Your task to perform on an android device: Open the calendar app, open the side menu, and click the "Day" option Image 0: 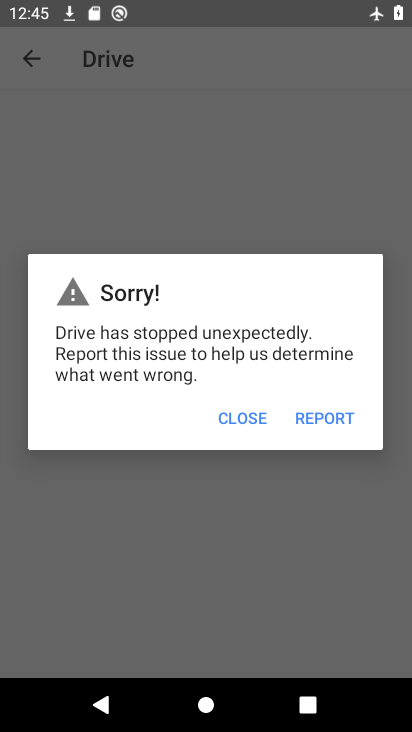
Step 0: press home button
Your task to perform on an android device: Open the calendar app, open the side menu, and click the "Day" option Image 1: 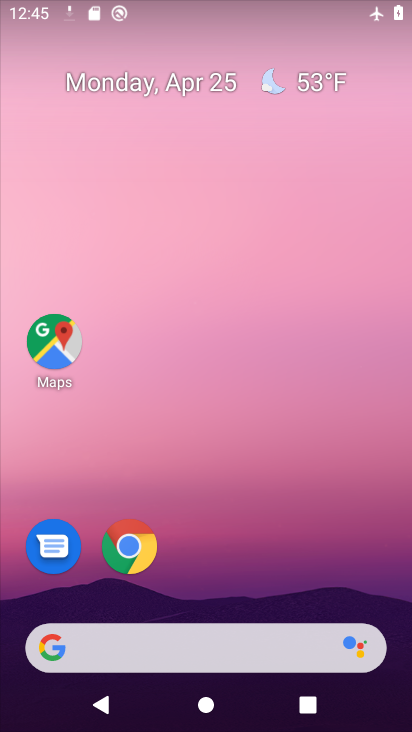
Step 1: drag from (281, 540) to (228, 89)
Your task to perform on an android device: Open the calendar app, open the side menu, and click the "Day" option Image 2: 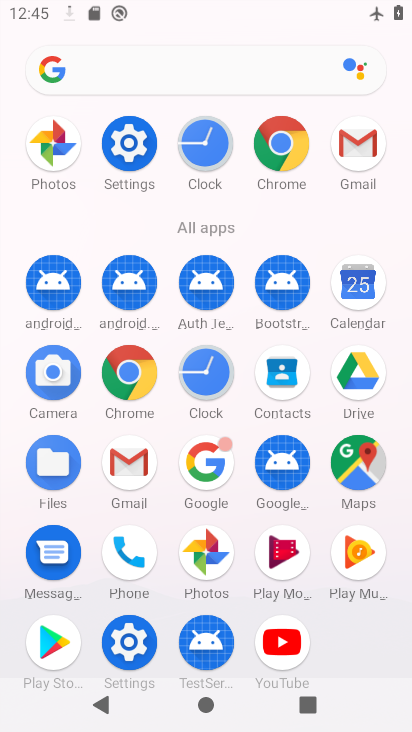
Step 2: click (354, 292)
Your task to perform on an android device: Open the calendar app, open the side menu, and click the "Day" option Image 3: 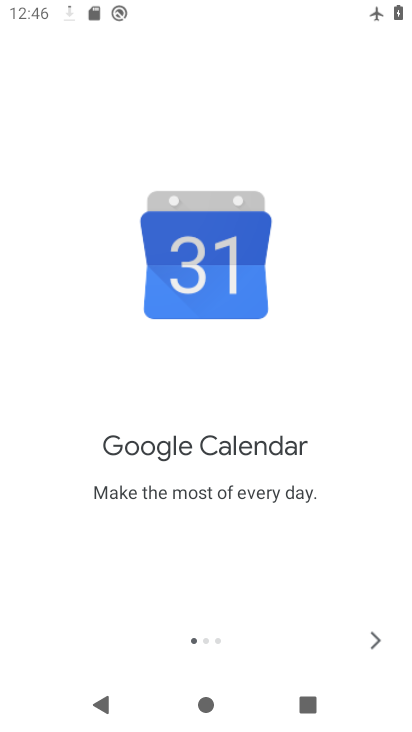
Step 3: click (374, 641)
Your task to perform on an android device: Open the calendar app, open the side menu, and click the "Day" option Image 4: 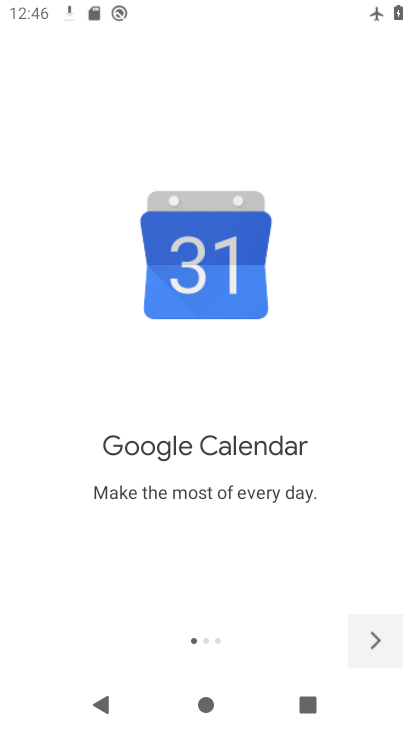
Step 4: click (374, 641)
Your task to perform on an android device: Open the calendar app, open the side menu, and click the "Day" option Image 5: 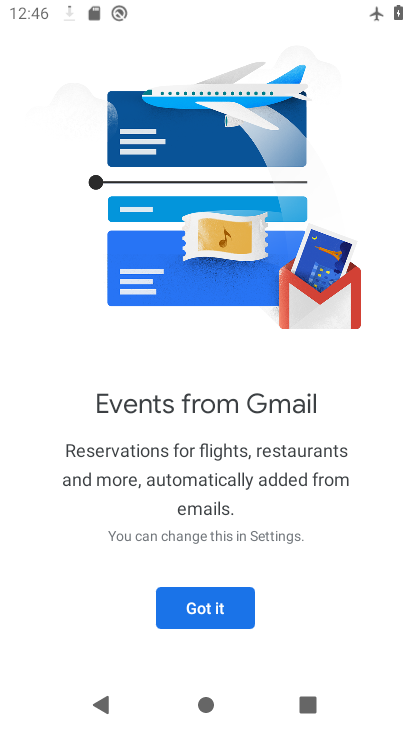
Step 5: click (200, 604)
Your task to perform on an android device: Open the calendar app, open the side menu, and click the "Day" option Image 6: 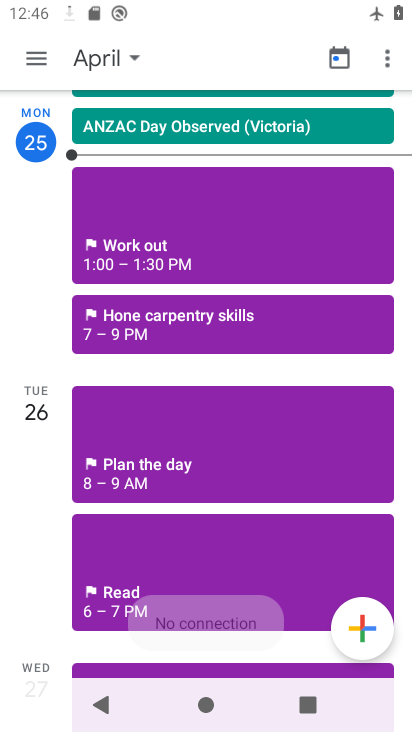
Step 6: click (45, 83)
Your task to perform on an android device: Open the calendar app, open the side menu, and click the "Day" option Image 7: 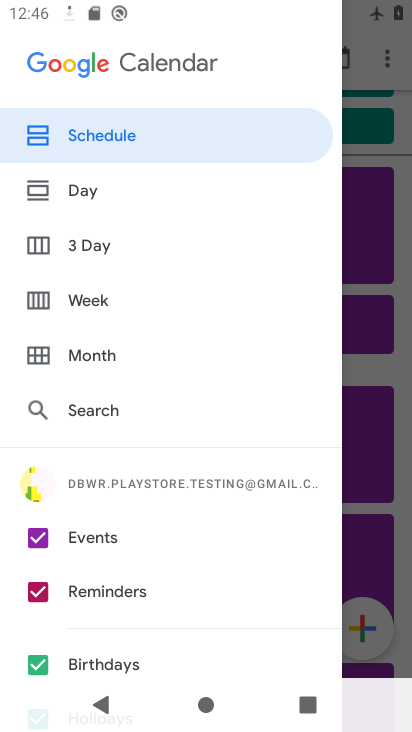
Step 7: click (77, 186)
Your task to perform on an android device: Open the calendar app, open the side menu, and click the "Day" option Image 8: 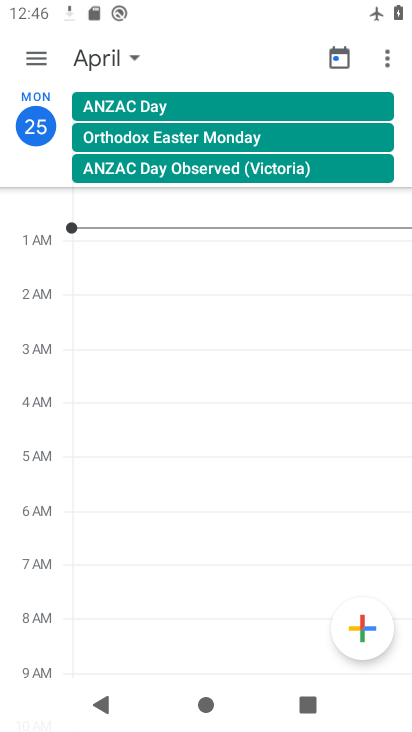
Step 8: task complete